Your task to perform on an android device: set the stopwatch Image 0: 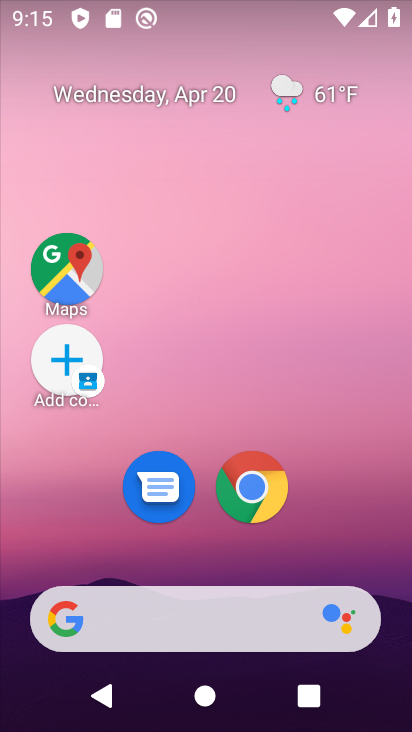
Step 0: drag from (317, 554) to (301, 16)
Your task to perform on an android device: set the stopwatch Image 1: 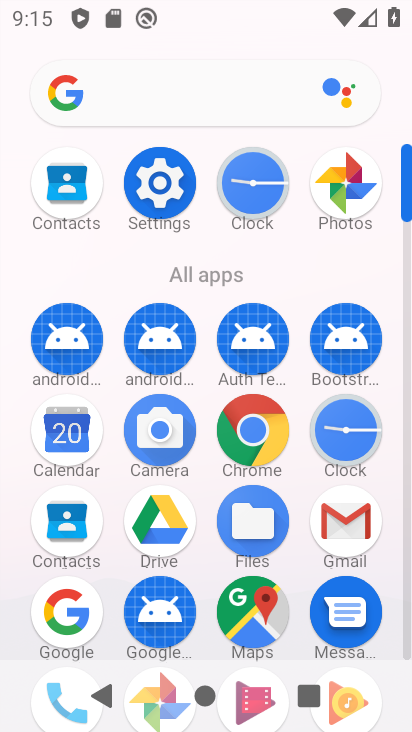
Step 1: click (328, 422)
Your task to perform on an android device: set the stopwatch Image 2: 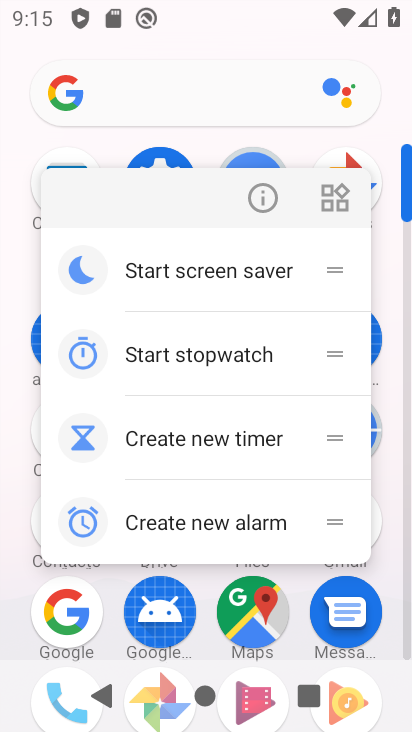
Step 2: click (382, 436)
Your task to perform on an android device: set the stopwatch Image 3: 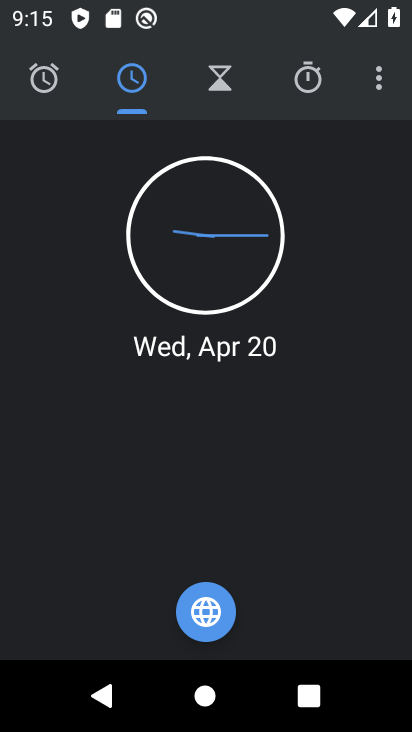
Step 3: click (219, 80)
Your task to perform on an android device: set the stopwatch Image 4: 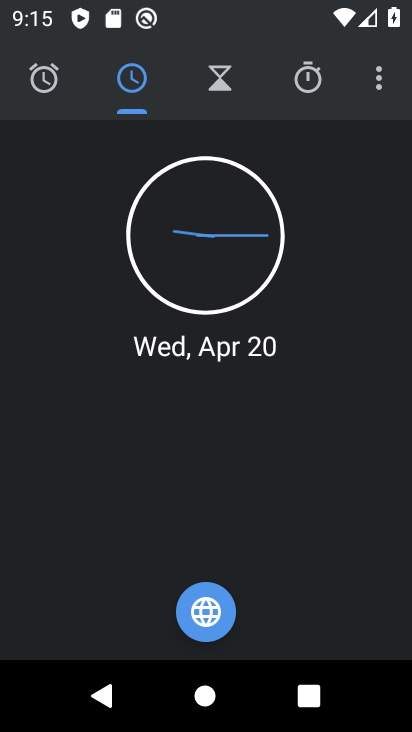
Step 4: click (299, 77)
Your task to perform on an android device: set the stopwatch Image 5: 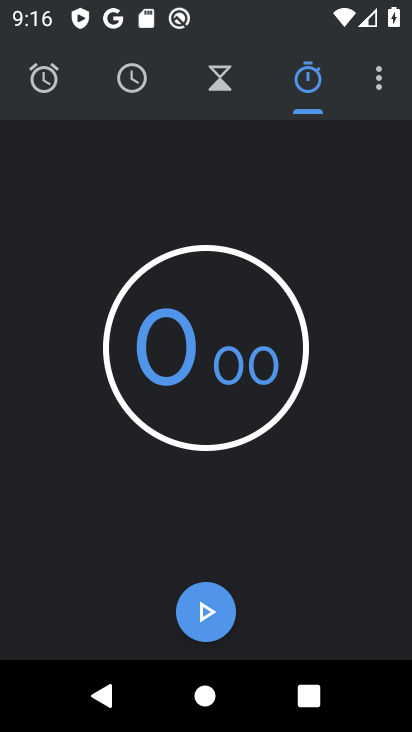
Step 5: click (195, 608)
Your task to perform on an android device: set the stopwatch Image 6: 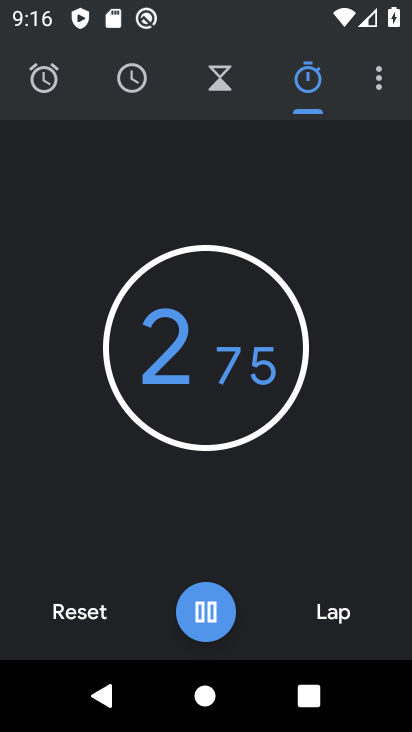
Step 6: task complete